Your task to perform on an android device: Search for logitech g pro on newegg.com, select the first entry, add it to the cart, then select checkout. Image 0: 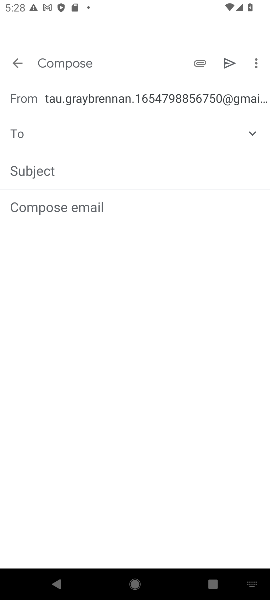
Step 0: press home button
Your task to perform on an android device: Search for logitech g pro on newegg.com, select the first entry, add it to the cart, then select checkout. Image 1: 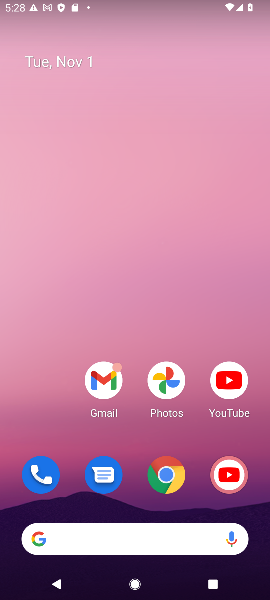
Step 1: click (173, 474)
Your task to perform on an android device: Search for logitech g pro on newegg.com, select the first entry, add it to the cart, then select checkout. Image 2: 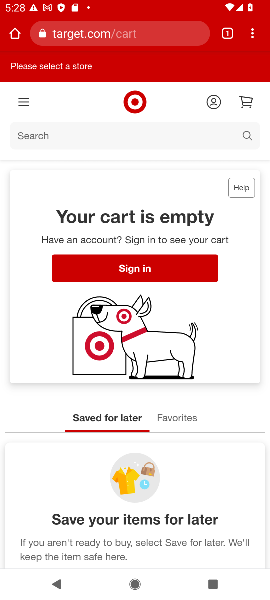
Step 2: click (158, 34)
Your task to perform on an android device: Search for logitech g pro on newegg.com, select the first entry, add it to the cart, then select checkout. Image 3: 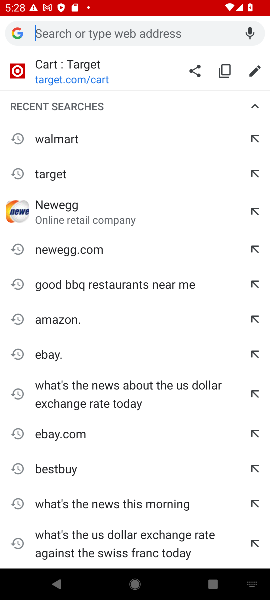
Step 3: press enter
Your task to perform on an android device: Search for logitech g pro on newegg.com, select the first entry, add it to the cart, then select checkout. Image 4: 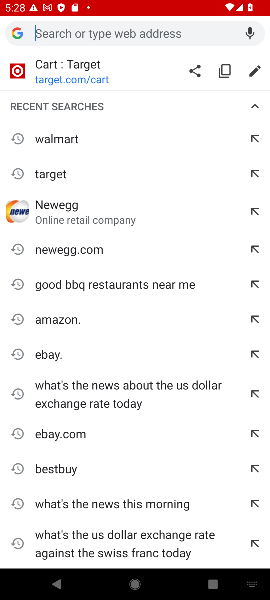
Step 4: type "newegg.com"
Your task to perform on an android device: Search for logitech g pro on newegg.com, select the first entry, add it to the cart, then select checkout. Image 5: 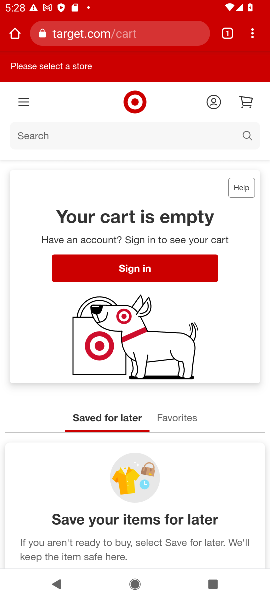
Step 5: click (132, 30)
Your task to perform on an android device: Search for logitech g pro on newegg.com, select the first entry, add it to the cart, then select checkout. Image 6: 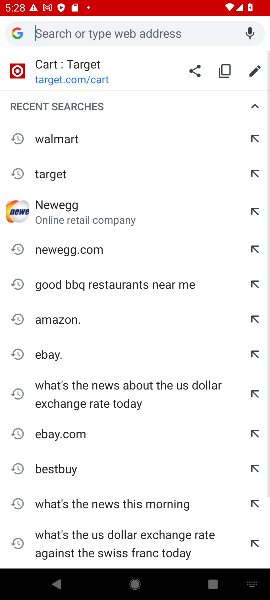
Step 6: type "newegg.com"
Your task to perform on an android device: Search for logitech g pro on newegg.com, select the first entry, add it to the cart, then select checkout. Image 7: 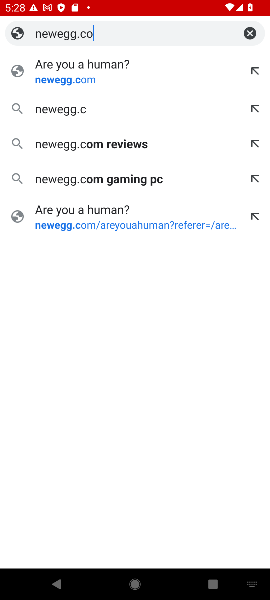
Step 7: press enter
Your task to perform on an android device: Search for logitech g pro on newegg.com, select the first entry, add it to the cart, then select checkout. Image 8: 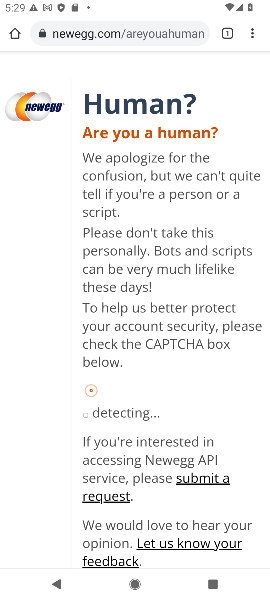
Step 8: click (10, 30)
Your task to perform on an android device: Search for logitech g pro on newegg.com, select the first entry, add it to the cart, then select checkout. Image 9: 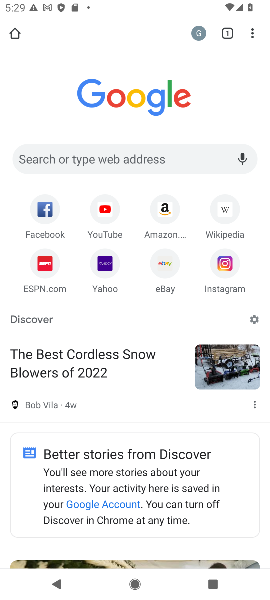
Step 9: click (82, 161)
Your task to perform on an android device: Search for logitech g pro on newegg.com, select the first entry, add it to the cart, then select checkout. Image 10: 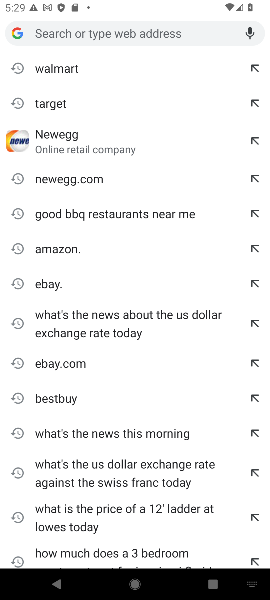
Step 10: press enter
Your task to perform on an android device: Search for logitech g pro on newegg.com, select the first entry, add it to the cart, then select checkout. Image 11: 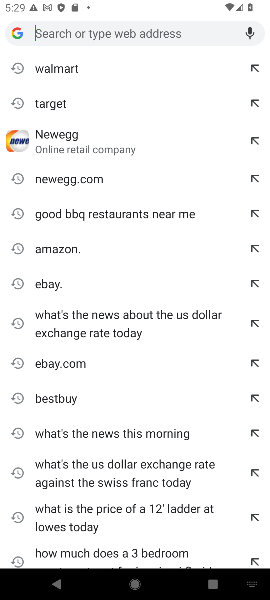
Step 11: type " newegg"
Your task to perform on an android device: Search for logitech g pro on newegg.com, select the first entry, add it to the cart, then select checkout. Image 12: 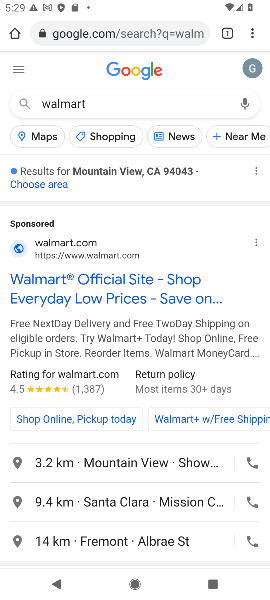
Step 12: click (69, 106)
Your task to perform on an android device: Search for logitech g pro on newegg.com, select the first entry, add it to the cart, then select checkout. Image 13: 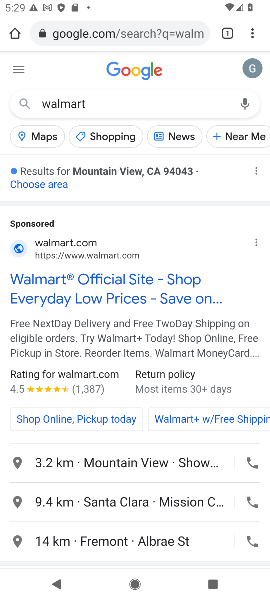
Step 13: click (69, 106)
Your task to perform on an android device: Search for logitech g pro on newegg.com, select the first entry, add it to the cart, then select checkout. Image 14: 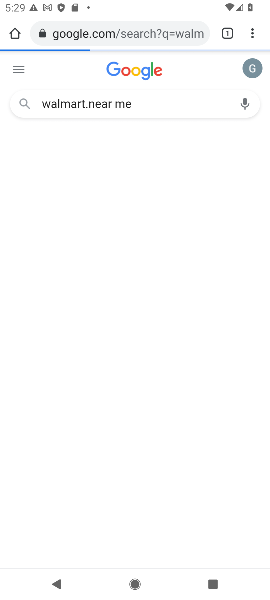
Step 14: click (95, 35)
Your task to perform on an android device: Search for logitech g pro on newegg.com, select the first entry, add it to the cart, then select checkout. Image 15: 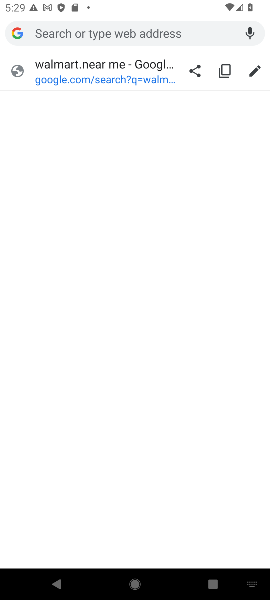
Step 15: type " newegg"
Your task to perform on an android device: Search for logitech g pro on newegg.com, select the first entry, add it to the cart, then select checkout. Image 16: 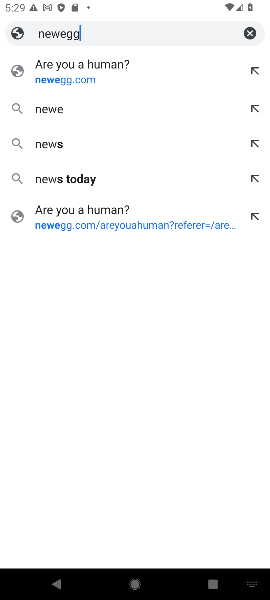
Step 16: press enter
Your task to perform on an android device: Search for logitech g pro on newegg.com, select the first entry, add it to the cart, then select checkout. Image 17: 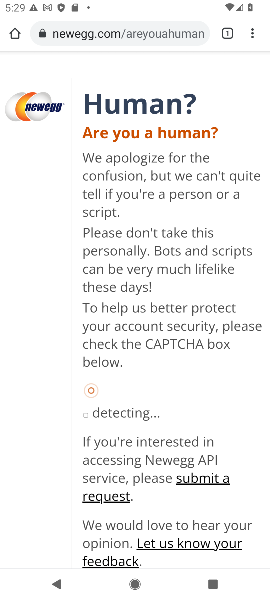
Step 17: drag from (191, 394) to (204, 242)
Your task to perform on an android device: Search for logitech g pro on newegg.com, select the first entry, add it to the cart, then select checkout. Image 18: 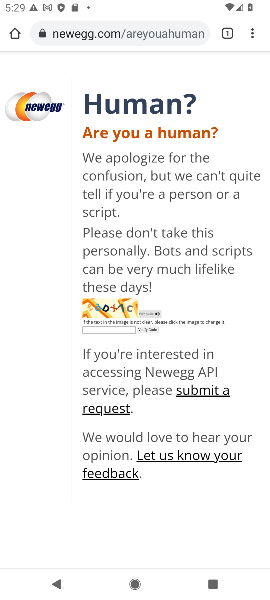
Step 18: click (91, 37)
Your task to perform on an android device: Search for logitech g pro on newegg.com, select the first entry, add it to the cart, then select checkout. Image 19: 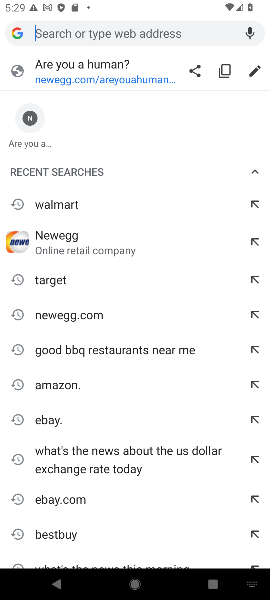
Step 19: click (61, 235)
Your task to perform on an android device: Search for logitech g pro on newegg.com, select the first entry, add it to the cart, then select checkout. Image 20: 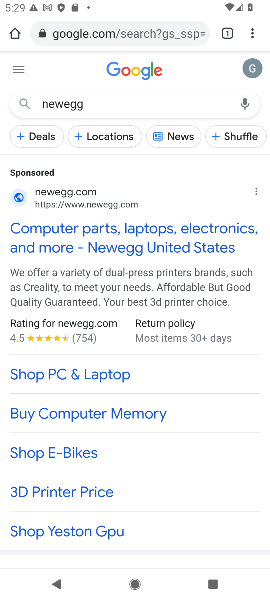
Step 20: click (65, 188)
Your task to perform on an android device: Search for logitech g pro on newegg.com, select the first entry, add it to the cart, then select checkout. Image 21: 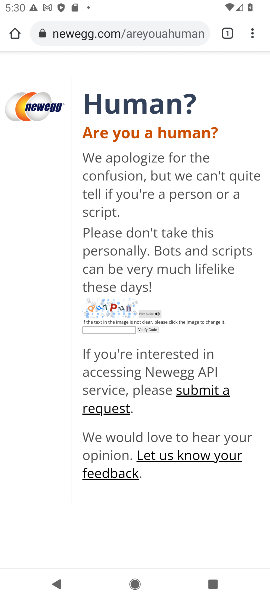
Step 21: press back button
Your task to perform on an android device: Search for logitech g pro on newegg.com, select the first entry, add it to the cart, then select checkout. Image 22: 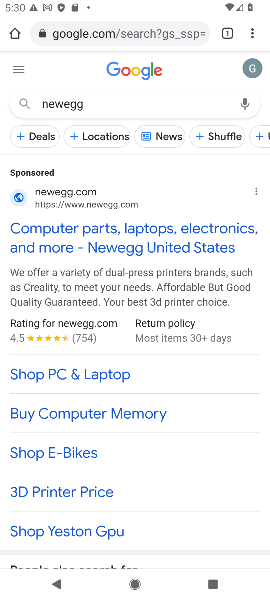
Step 22: drag from (148, 413) to (160, 205)
Your task to perform on an android device: Search for logitech g pro on newegg.com, select the first entry, add it to the cart, then select checkout. Image 23: 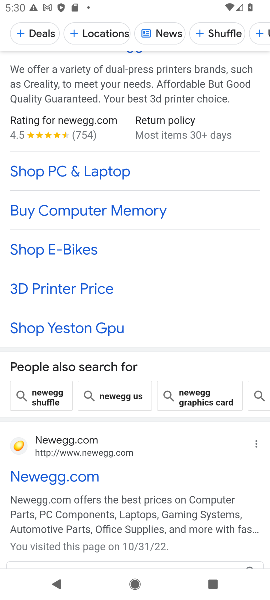
Step 23: click (83, 440)
Your task to perform on an android device: Search for logitech g pro on newegg.com, select the first entry, add it to the cart, then select checkout. Image 24: 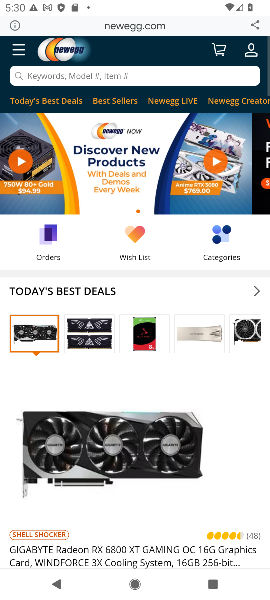
Step 24: click (154, 76)
Your task to perform on an android device: Search for logitech g pro on newegg.com, select the first entry, add it to the cart, then select checkout. Image 25: 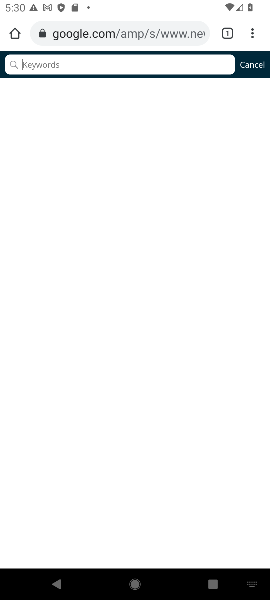
Step 25: type " logitech g pro"
Your task to perform on an android device: Search for logitech g pro on newegg.com, select the first entry, add it to the cart, then select checkout. Image 26: 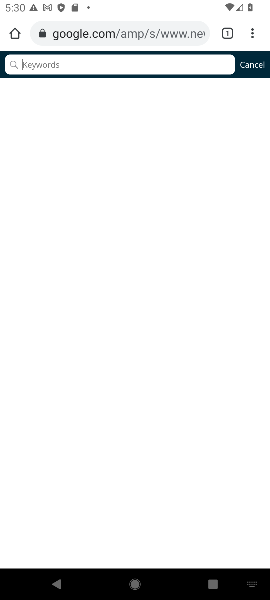
Step 26: press enter
Your task to perform on an android device: Search for logitech g pro on newegg.com, select the first entry, add it to the cart, then select checkout. Image 27: 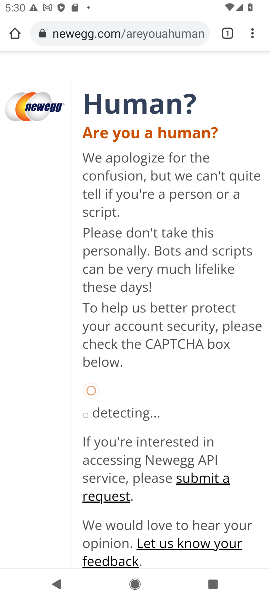
Step 27: task complete